Your task to perform on an android device: all mails in gmail Image 0: 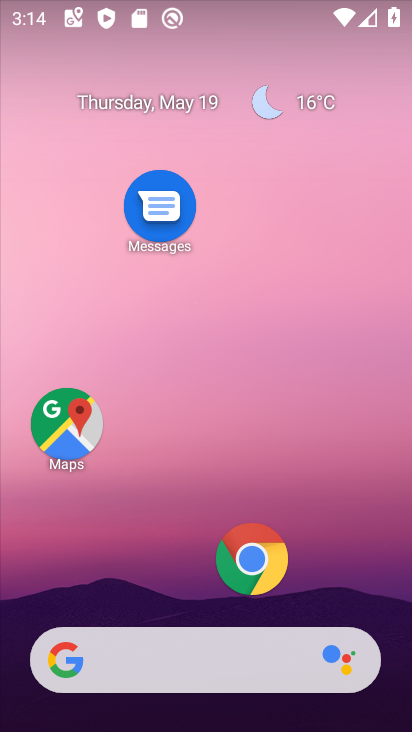
Step 0: drag from (197, 610) to (224, 252)
Your task to perform on an android device: all mails in gmail Image 1: 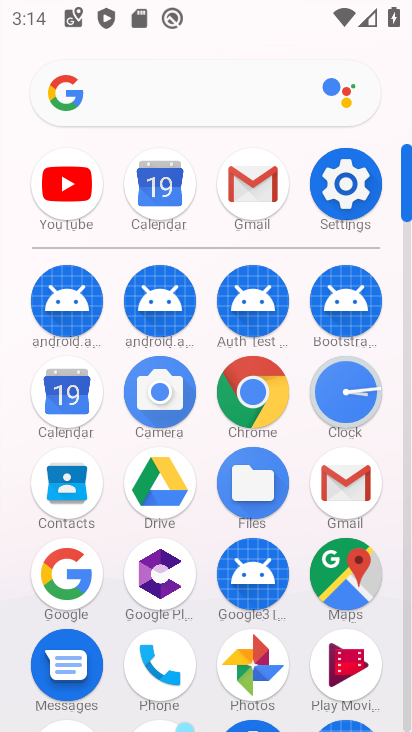
Step 1: click (262, 200)
Your task to perform on an android device: all mails in gmail Image 2: 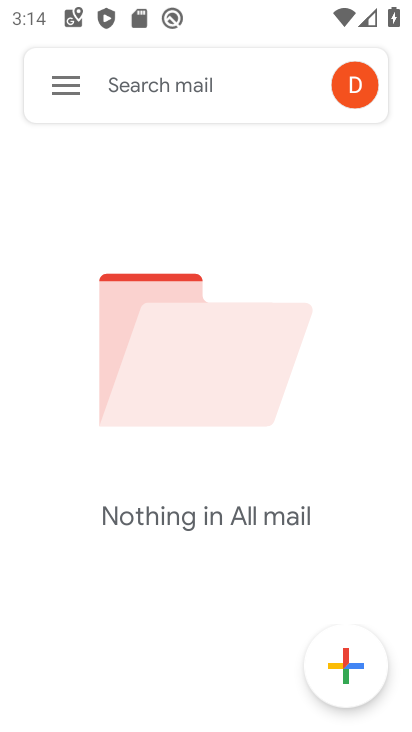
Step 2: click (66, 92)
Your task to perform on an android device: all mails in gmail Image 3: 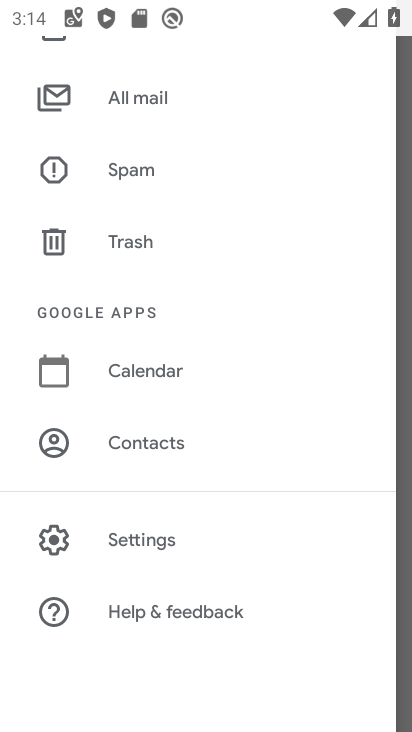
Step 3: click (157, 104)
Your task to perform on an android device: all mails in gmail Image 4: 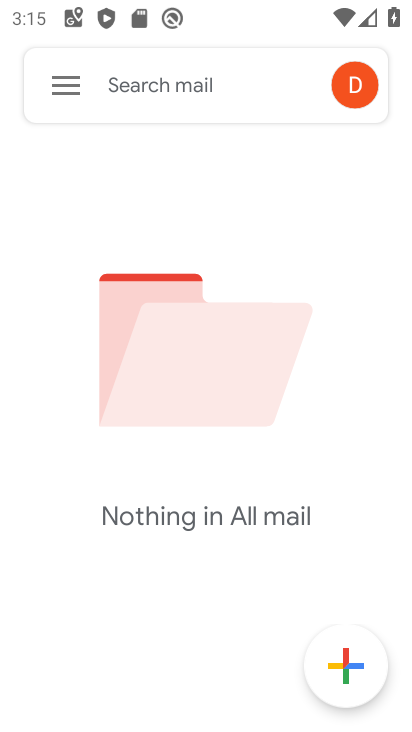
Step 4: task complete